Your task to perform on an android device: Do I have any events this weekend? Image 0: 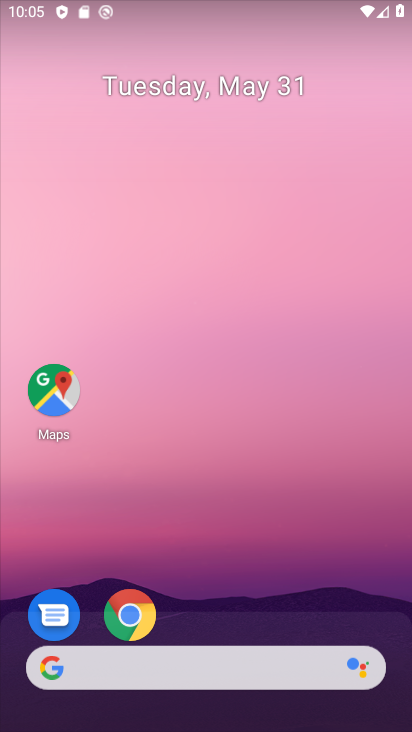
Step 0: task complete